Your task to perform on an android device: What's the weather going to be this weekend? Image 0: 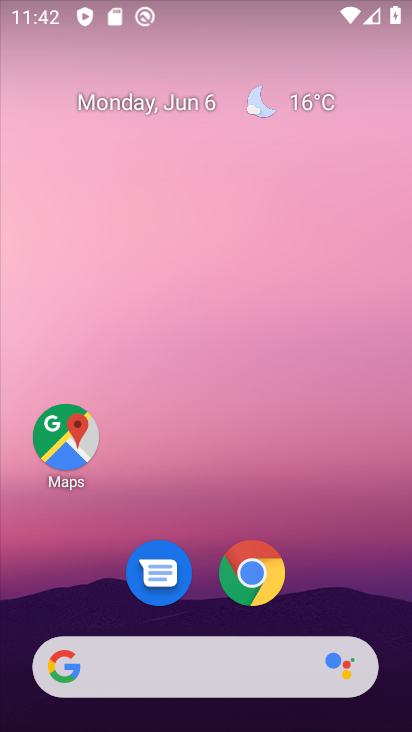
Step 0: press home button
Your task to perform on an android device: What's the weather going to be this weekend? Image 1: 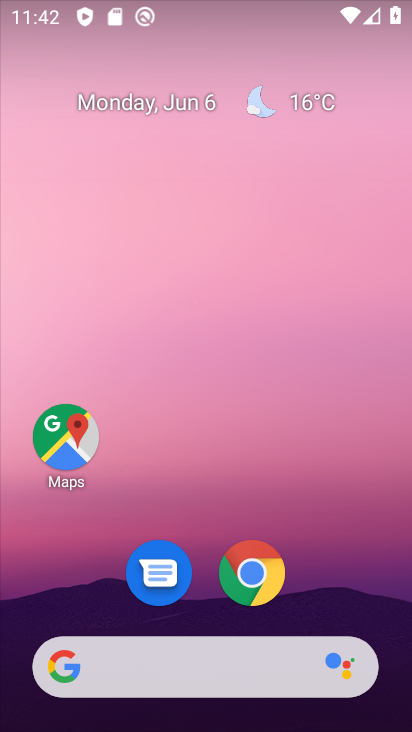
Step 1: click (250, 567)
Your task to perform on an android device: What's the weather going to be this weekend? Image 2: 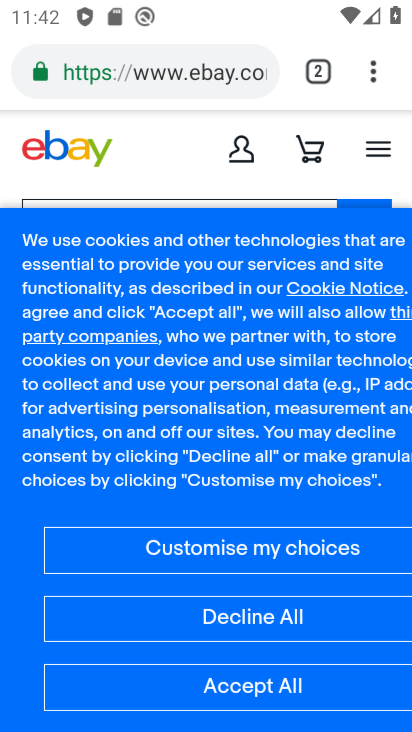
Step 2: click (168, 58)
Your task to perform on an android device: What's the weather going to be this weekend? Image 3: 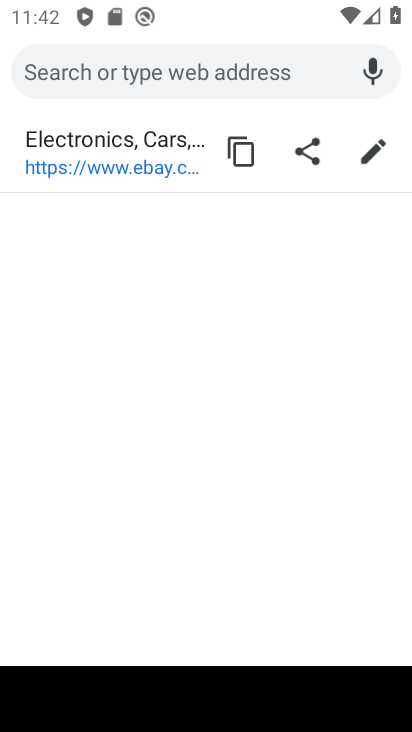
Step 3: type " What's the weather going to be this weekend?"
Your task to perform on an android device: What's the weather going to be this weekend? Image 4: 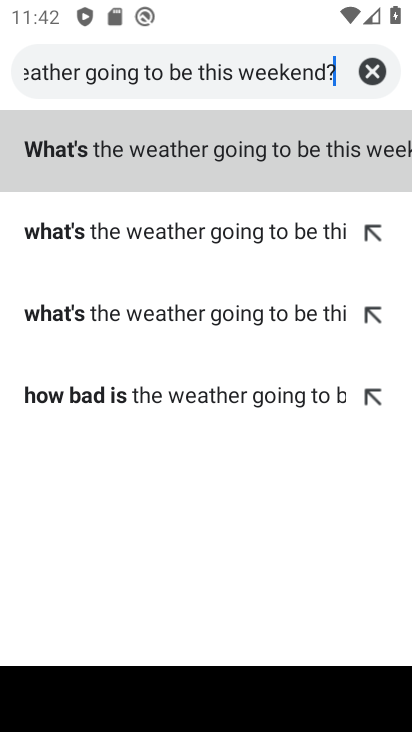
Step 4: click (337, 156)
Your task to perform on an android device: What's the weather going to be this weekend? Image 5: 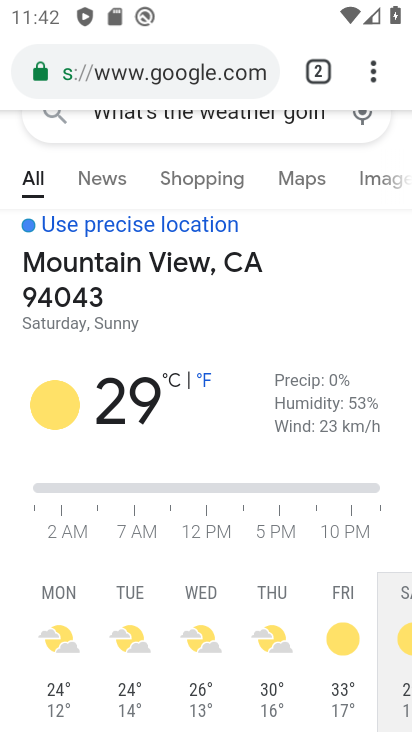
Step 5: task complete